Your task to perform on an android device: Open display settings Image 0: 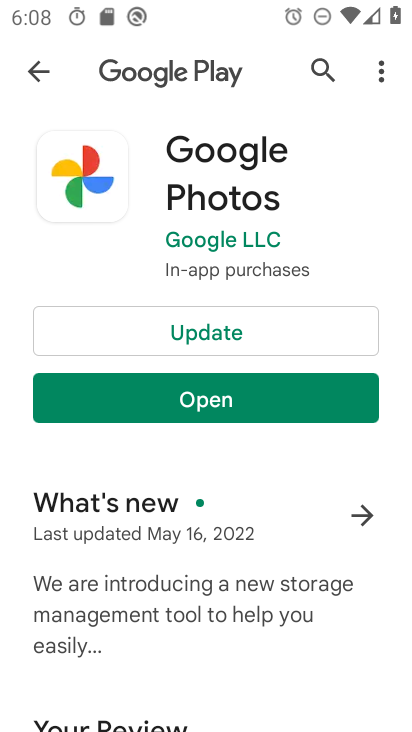
Step 0: press home button
Your task to perform on an android device: Open display settings Image 1: 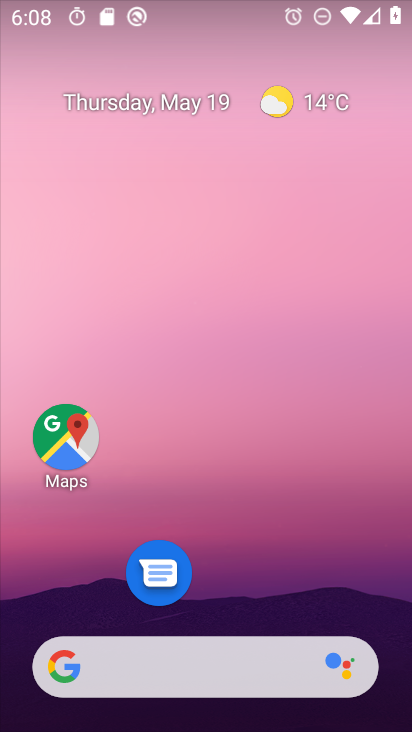
Step 1: drag from (230, 597) to (306, 119)
Your task to perform on an android device: Open display settings Image 2: 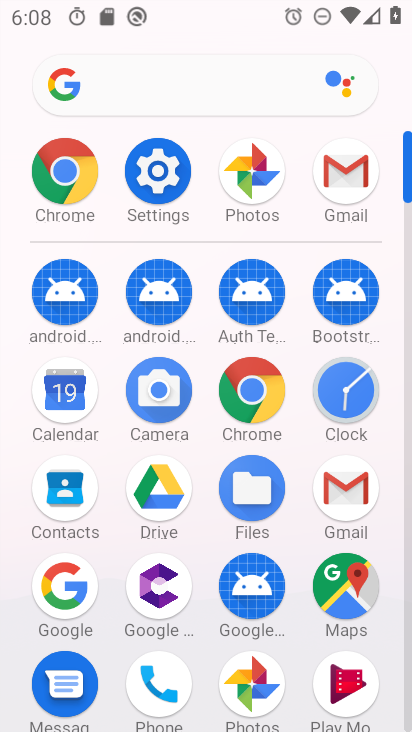
Step 2: click (165, 193)
Your task to perform on an android device: Open display settings Image 3: 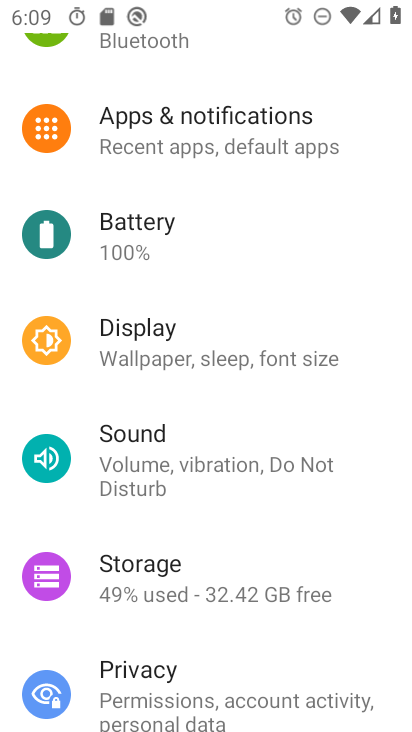
Step 3: click (124, 364)
Your task to perform on an android device: Open display settings Image 4: 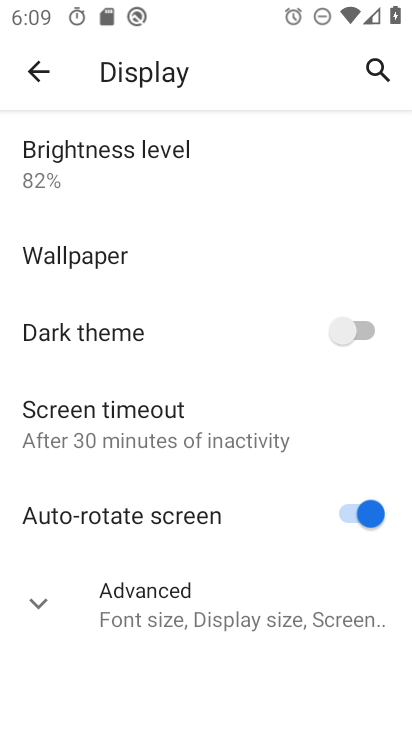
Step 4: task complete